Your task to perform on an android device: check out phone information Image 0: 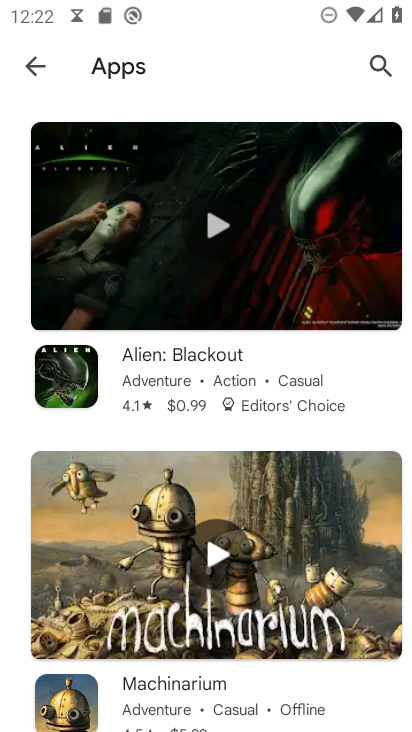
Step 0: press home button
Your task to perform on an android device: check out phone information Image 1: 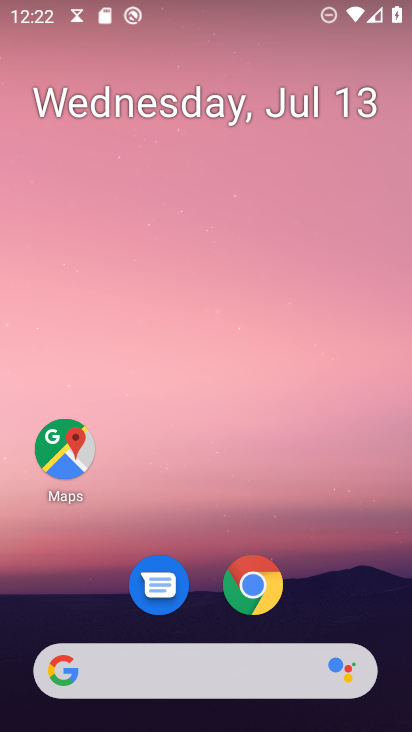
Step 1: drag from (174, 677) to (333, 76)
Your task to perform on an android device: check out phone information Image 2: 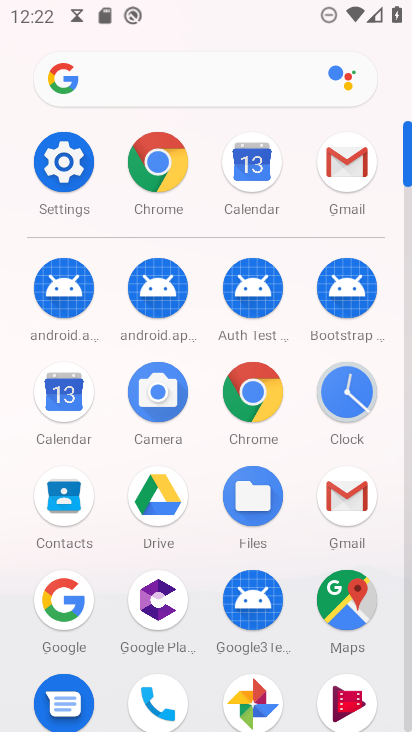
Step 2: click (73, 170)
Your task to perform on an android device: check out phone information Image 3: 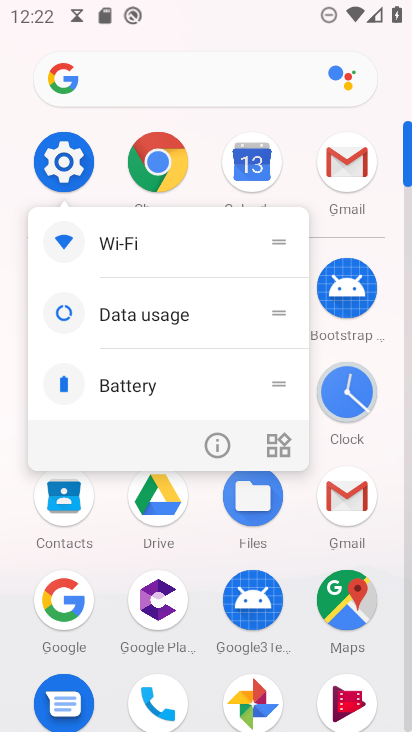
Step 3: click (62, 171)
Your task to perform on an android device: check out phone information Image 4: 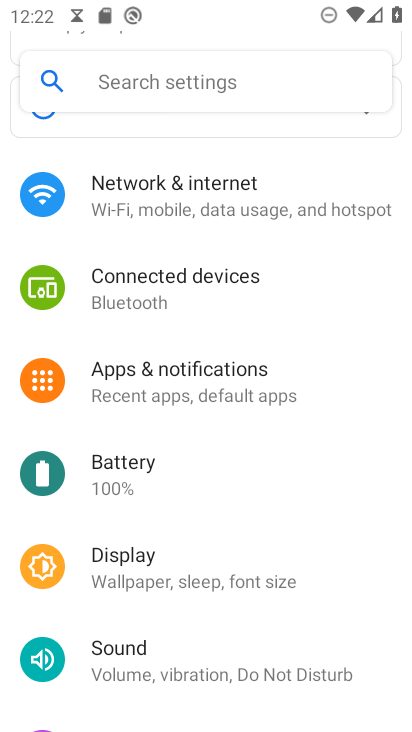
Step 4: drag from (187, 623) to (333, 83)
Your task to perform on an android device: check out phone information Image 5: 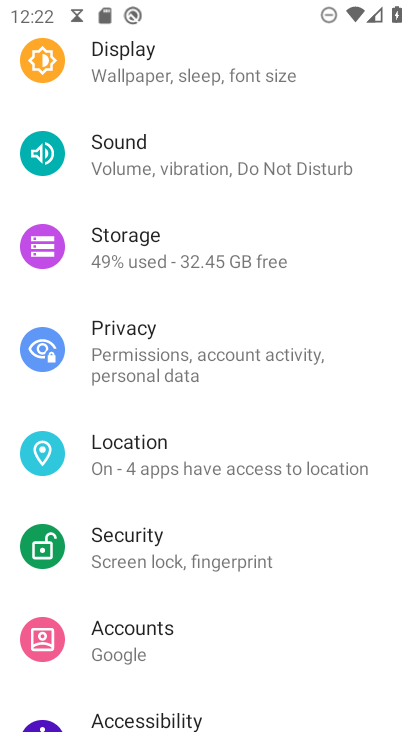
Step 5: drag from (191, 646) to (358, 157)
Your task to perform on an android device: check out phone information Image 6: 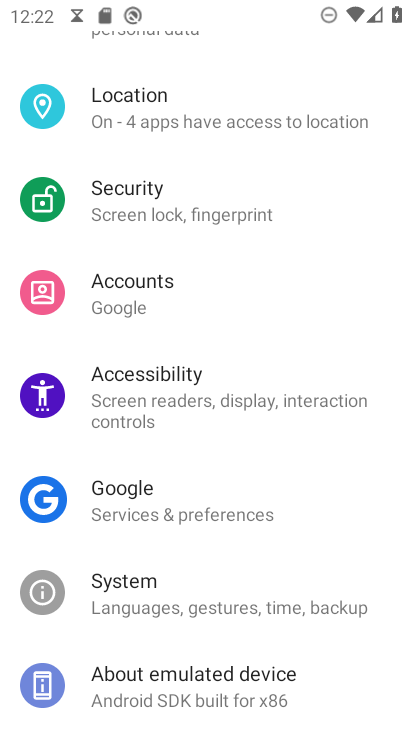
Step 6: click (177, 693)
Your task to perform on an android device: check out phone information Image 7: 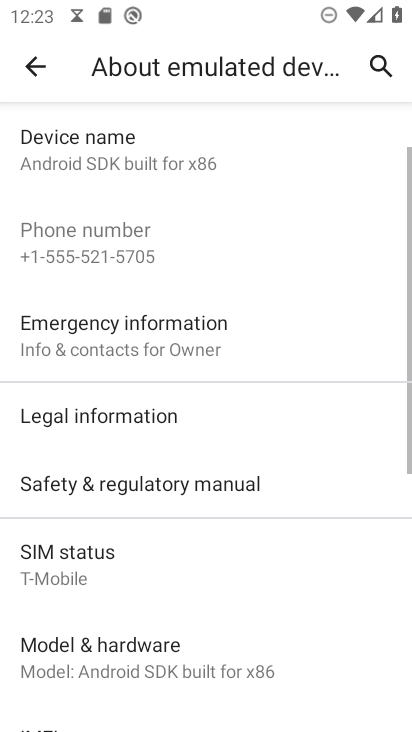
Step 7: task complete